Your task to perform on an android device: turn on improve location accuracy Image 0: 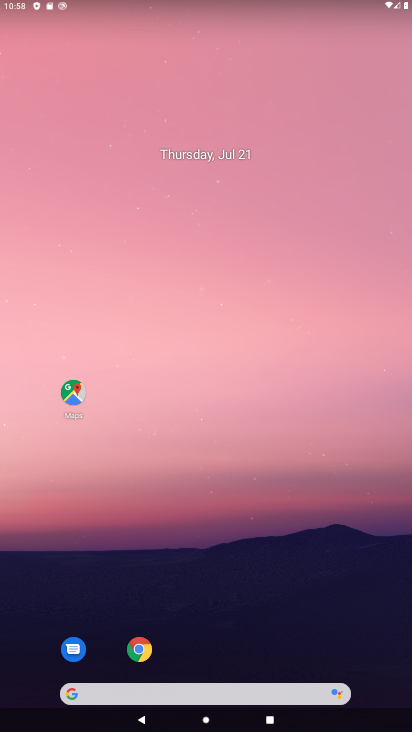
Step 0: drag from (212, 673) to (149, 76)
Your task to perform on an android device: turn on improve location accuracy Image 1: 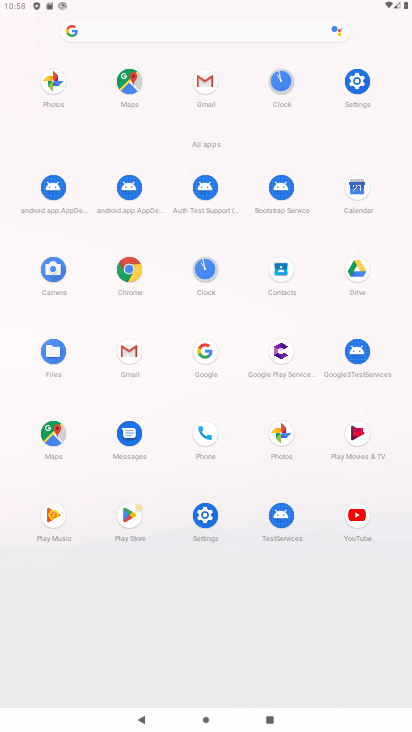
Step 1: click (202, 514)
Your task to perform on an android device: turn on improve location accuracy Image 2: 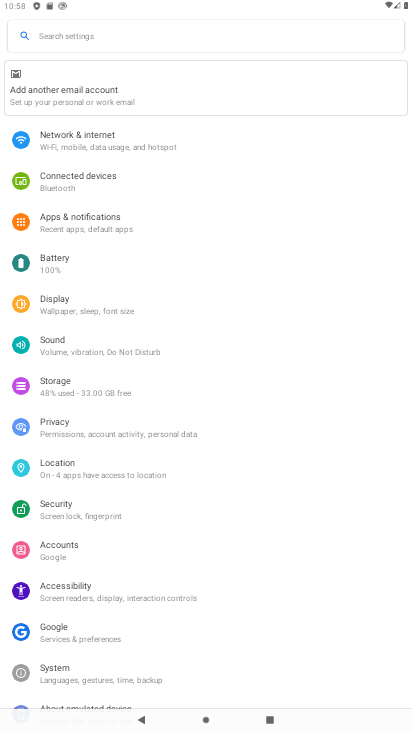
Step 2: click (38, 457)
Your task to perform on an android device: turn on improve location accuracy Image 3: 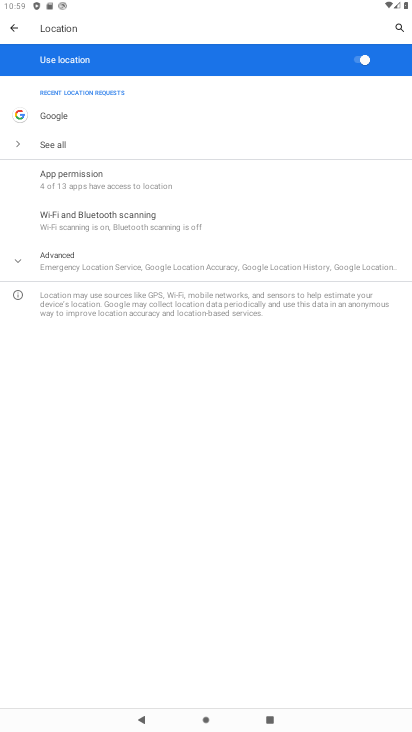
Step 3: task complete